Your task to perform on an android device: Turn off the flashlight Image 0: 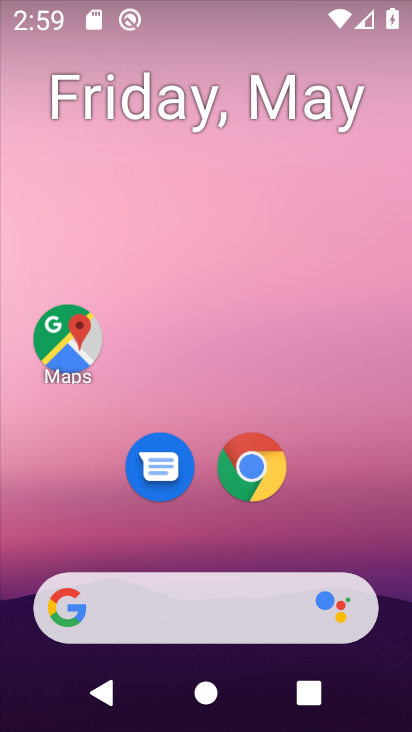
Step 0: drag from (210, 15) to (214, 445)
Your task to perform on an android device: Turn off the flashlight Image 1: 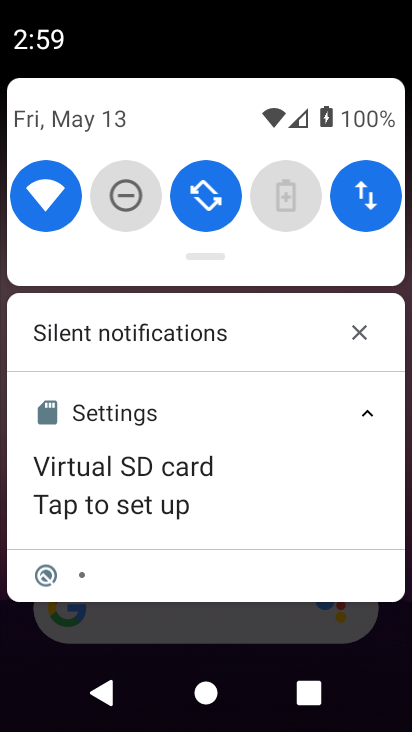
Step 1: task complete